Your task to perform on an android device: Go to Wikipedia Image 0: 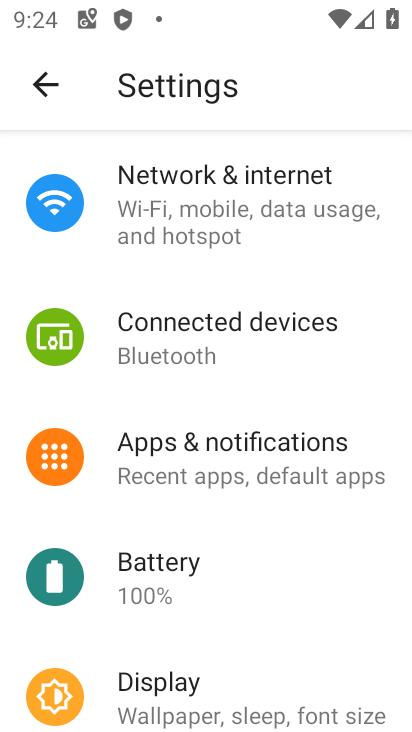
Step 0: press home button
Your task to perform on an android device: Go to Wikipedia Image 1: 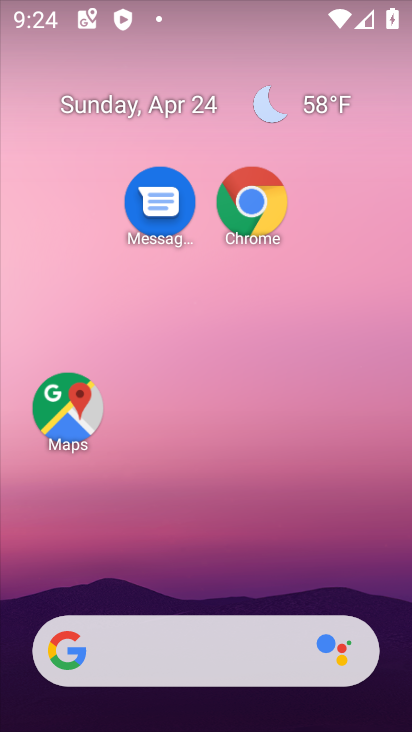
Step 1: click (250, 200)
Your task to perform on an android device: Go to Wikipedia Image 2: 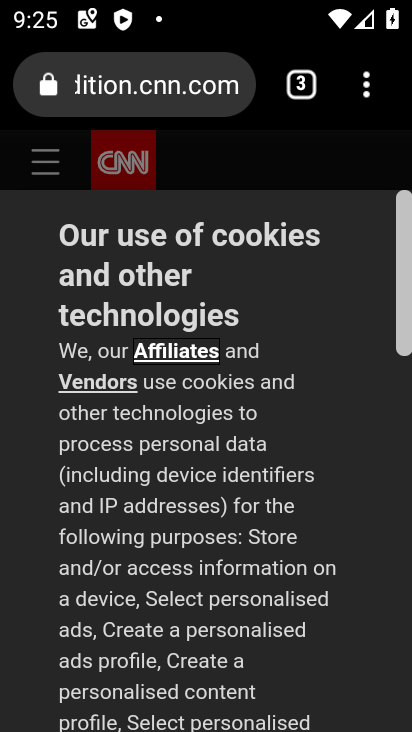
Step 2: drag from (365, 89) to (144, 264)
Your task to perform on an android device: Go to Wikipedia Image 3: 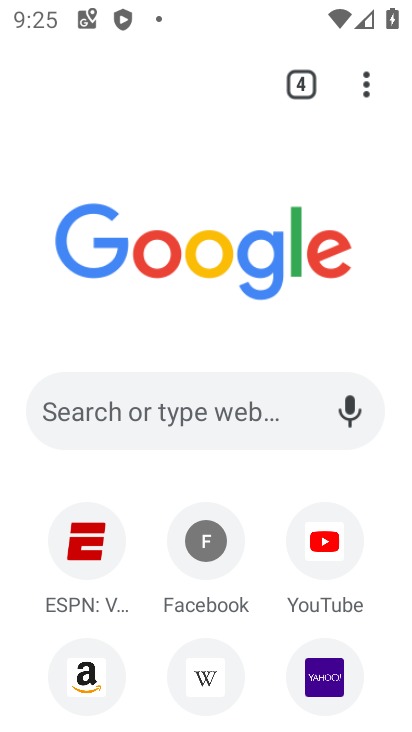
Step 3: click (199, 684)
Your task to perform on an android device: Go to Wikipedia Image 4: 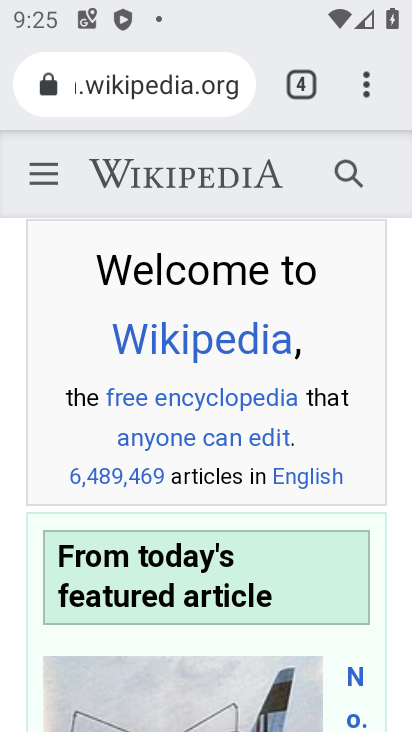
Step 4: task complete